Your task to perform on an android device: add a contact Image 0: 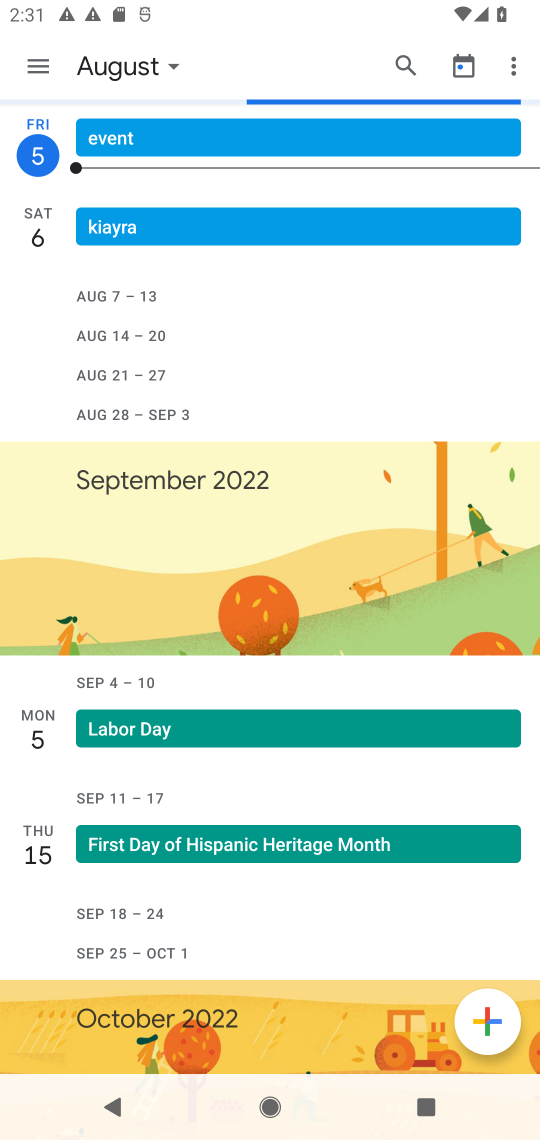
Step 0: press home button
Your task to perform on an android device: add a contact Image 1: 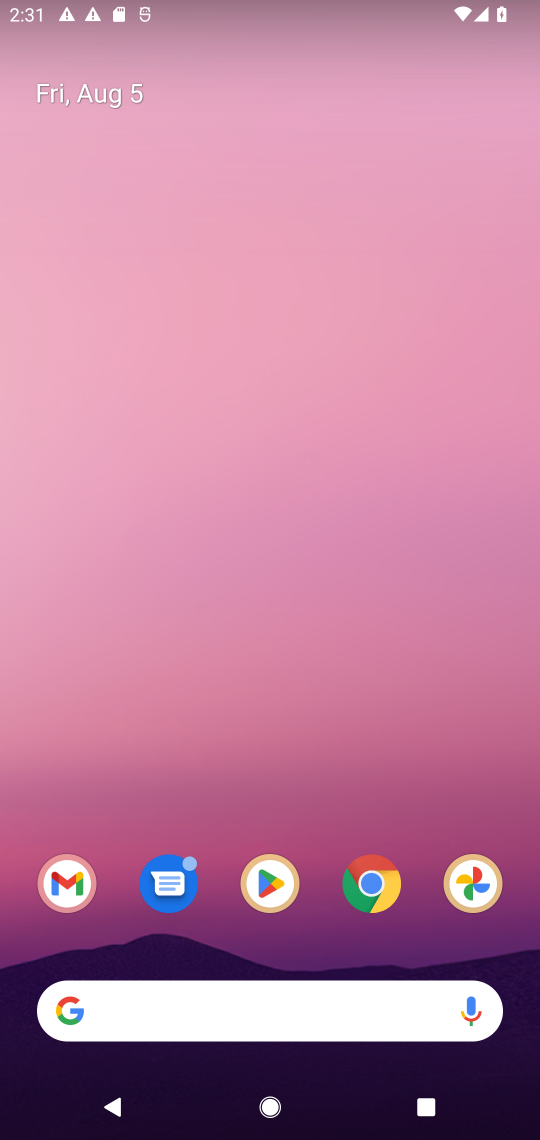
Step 1: drag from (310, 942) to (315, 17)
Your task to perform on an android device: add a contact Image 2: 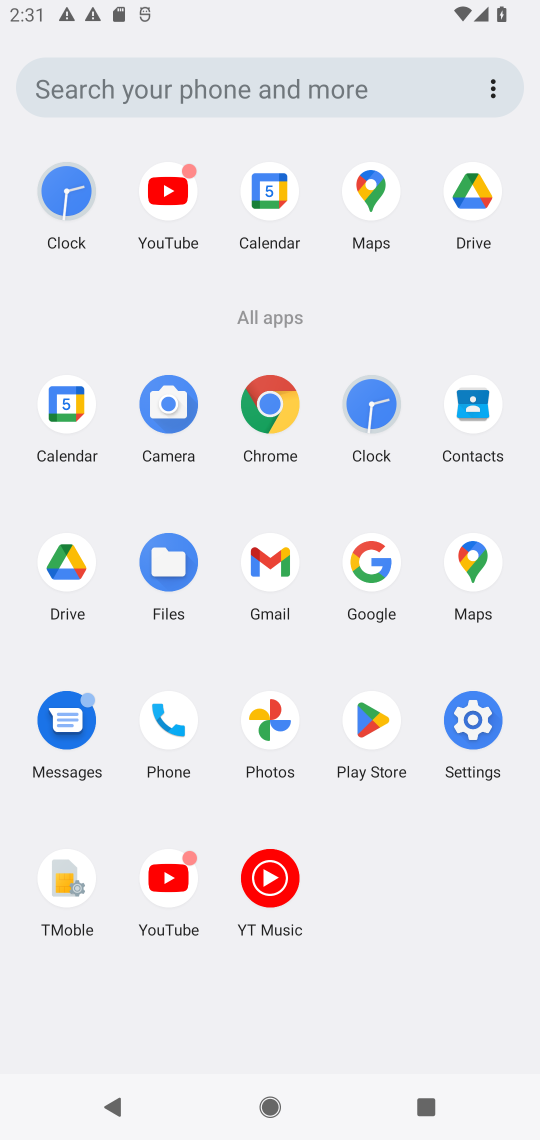
Step 2: click (471, 398)
Your task to perform on an android device: add a contact Image 3: 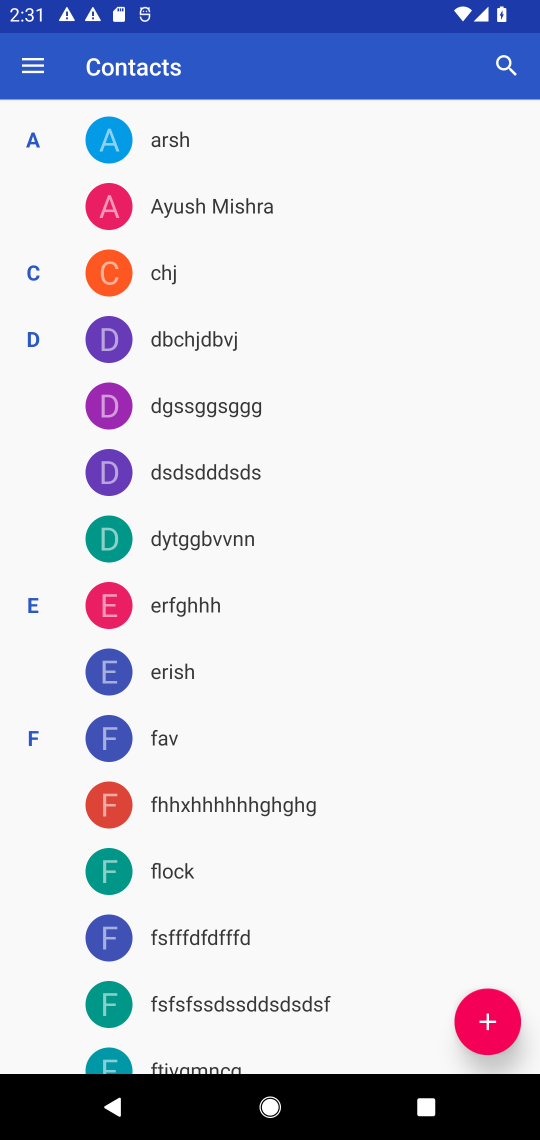
Step 3: click (485, 1016)
Your task to perform on an android device: add a contact Image 4: 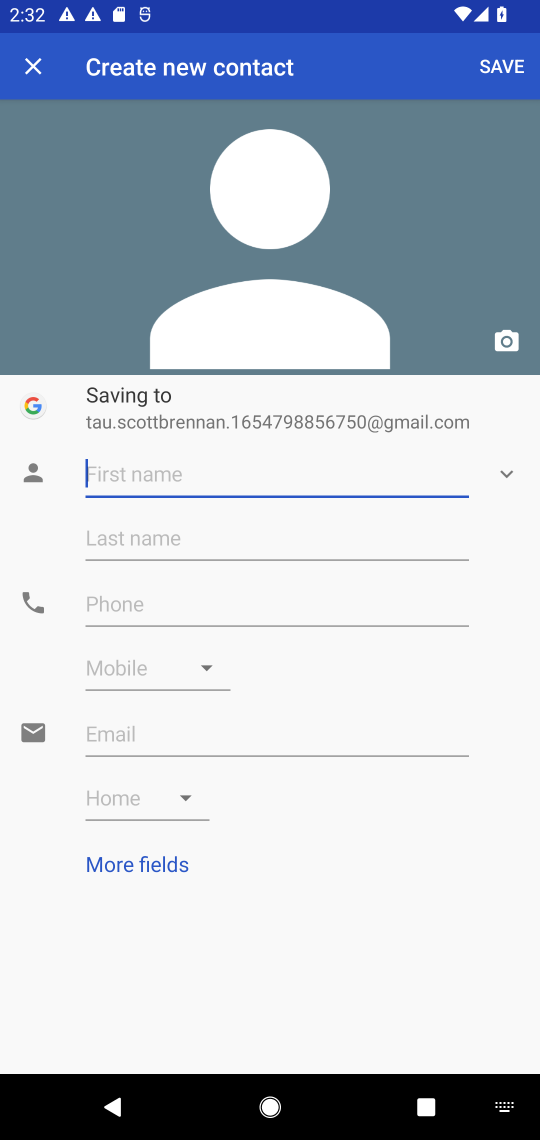
Step 4: type "crdxfg"
Your task to perform on an android device: add a contact Image 5: 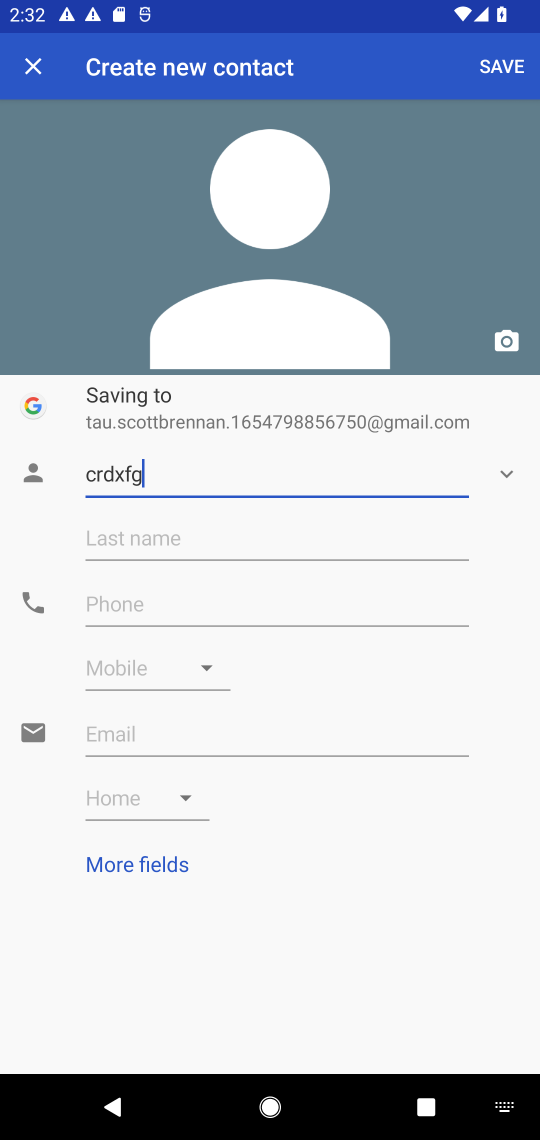
Step 5: click (500, 63)
Your task to perform on an android device: add a contact Image 6: 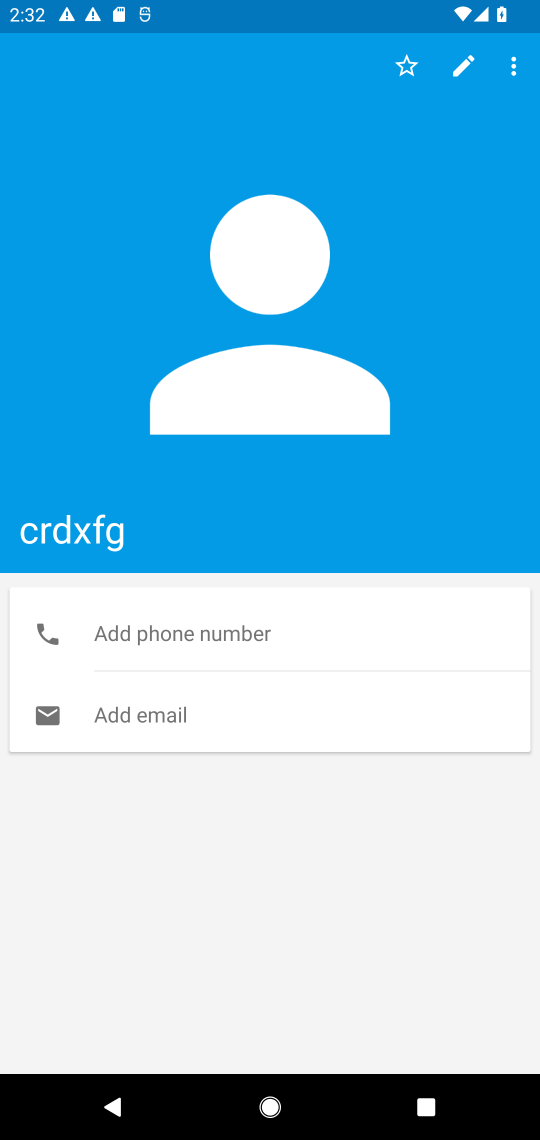
Step 6: task complete